Your task to perform on an android device: Go to accessibility settings Image 0: 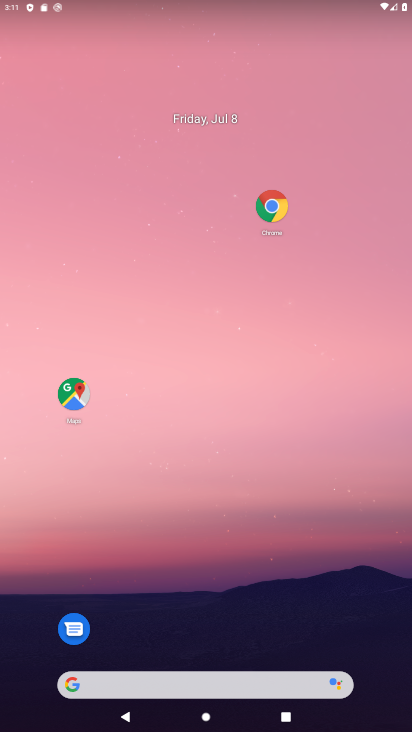
Step 0: drag from (213, 649) to (220, 0)
Your task to perform on an android device: Go to accessibility settings Image 1: 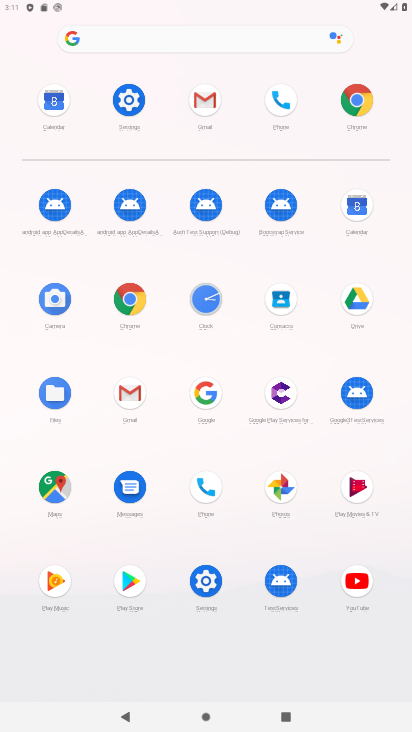
Step 1: click (195, 588)
Your task to perform on an android device: Go to accessibility settings Image 2: 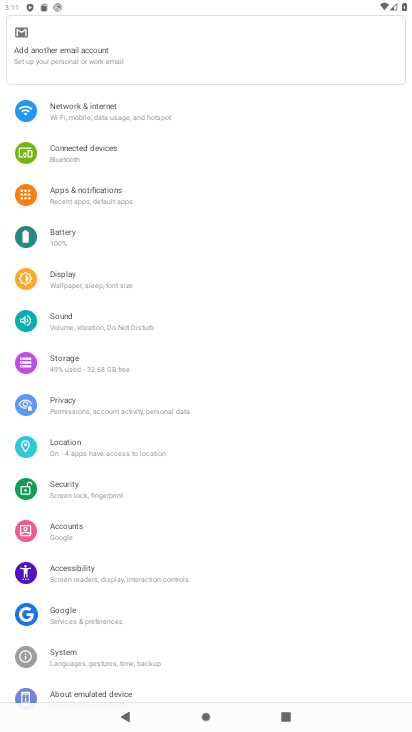
Step 2: drag from (134, 566) to (183, 339)
Your task to perform on an android device: Go to accessibility settings Image 3: 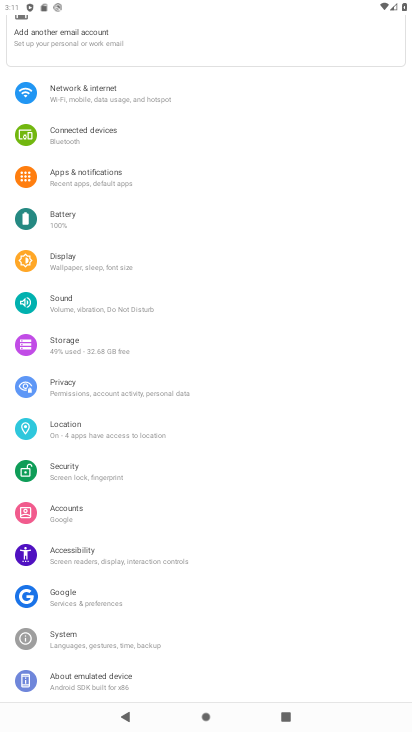
Step 3: click (98, 553)
Your task to perform on an android device: Go to accessibility settings Image 4: 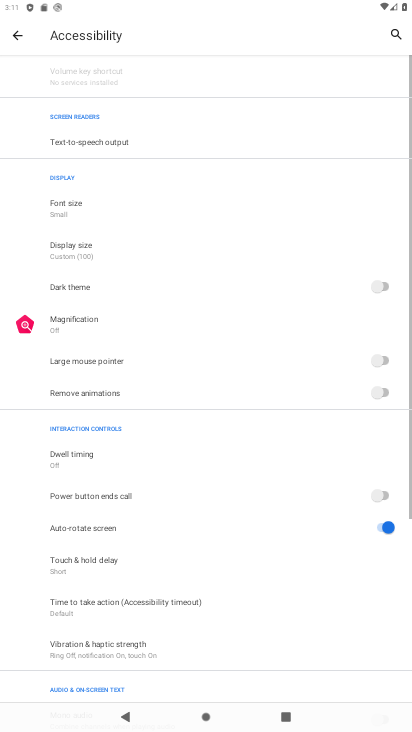
Step 4: task complete